Your task to perform on an android device: turn smart compose on in the gmail app Image 0: 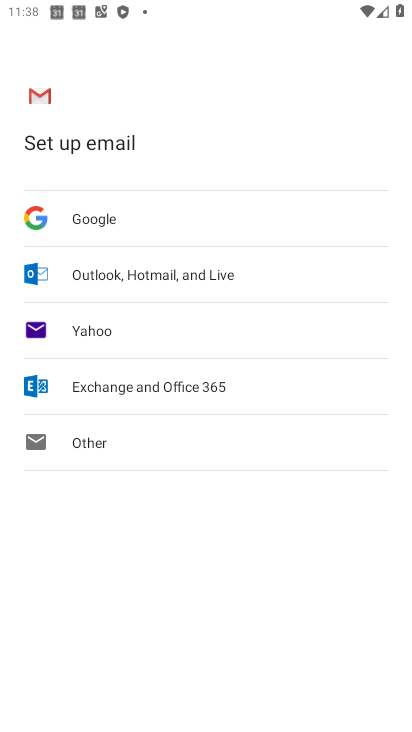
Step 0: press home button
Your task to perform on an android device: turn smart compose on in the gmail app Image 1: 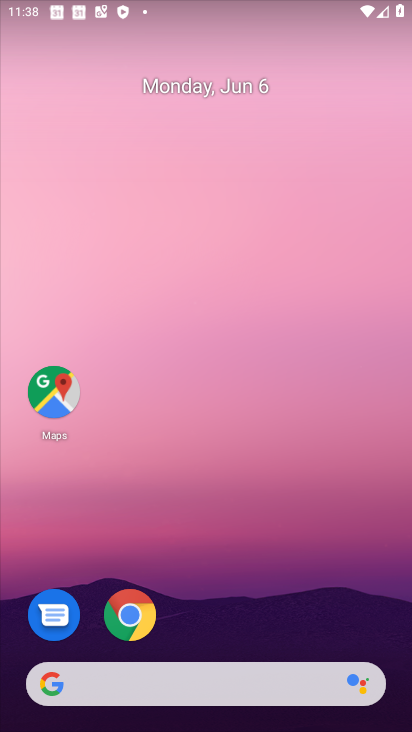
Step 1: drag from (269, 625) to (311, 31)
Your task to perform on an android device: turn smart compose on in the gmail app Image 2: 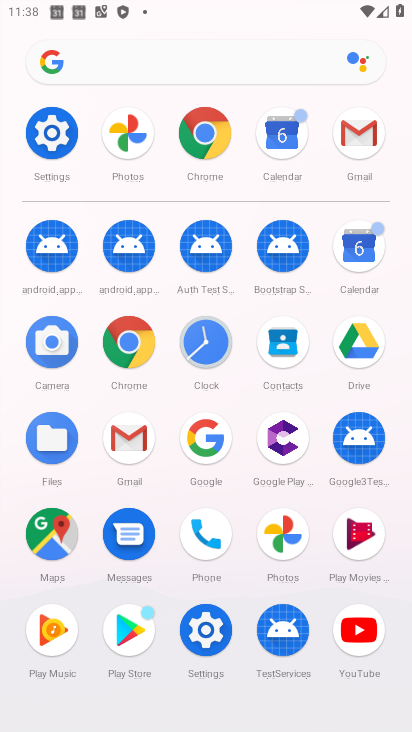
Step 2: click (130, 442)
Your task to perform on an android device: turn smart compose on in the gmail app Image 3: 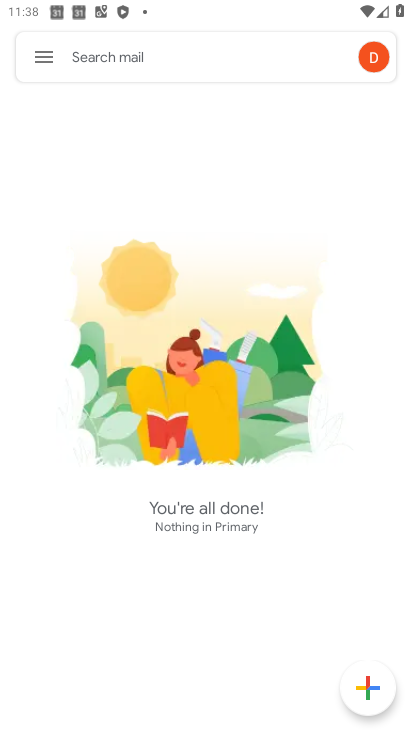
Step 3: click (48, 64)
Your task to perform on an android device: turn smart compose on in the gmail app Image 4: 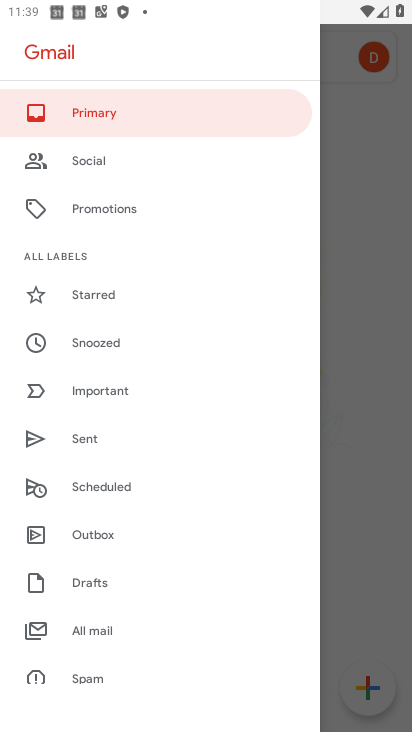
Step 4: click (382, 590)
Your task to perform on an android device: turn smart compose on in the gmail app Image 5: 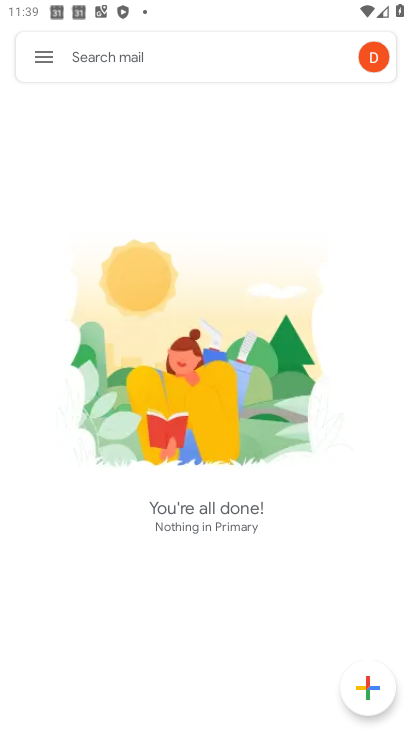
Step 5: click (27, 62)
Your task to perform on an android device: turn smart compose on in the gmail app Image 6: 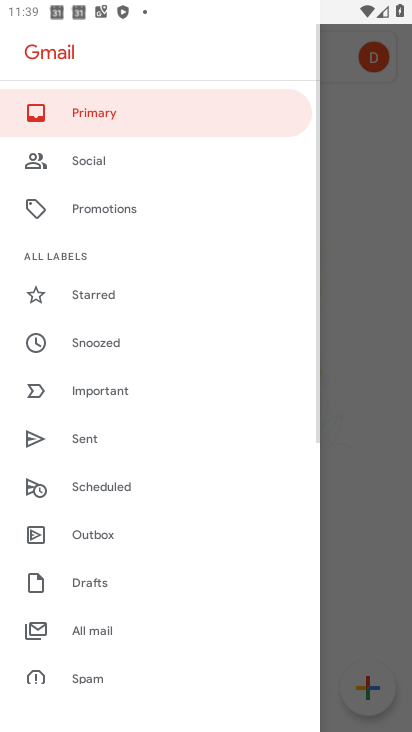
Step 6: drag from (53, 642) to (131, 322)
Your task to perform on an android device: turn smart compose on in the gmail app Image 7: 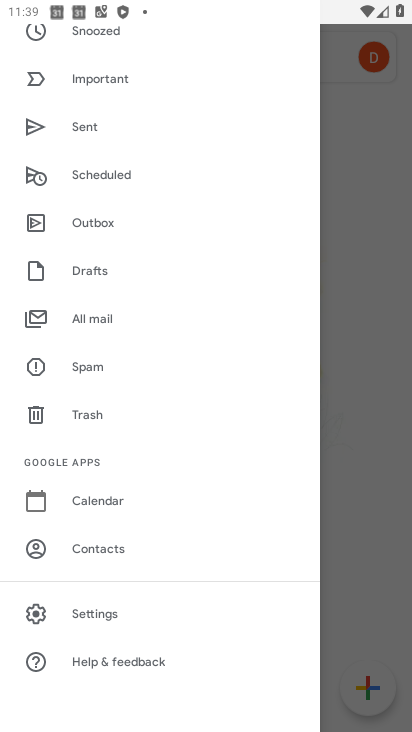
Step 7: click (141, 605)
Your task to perform on an android device: turn smart compose on in the gmail app Image 8: 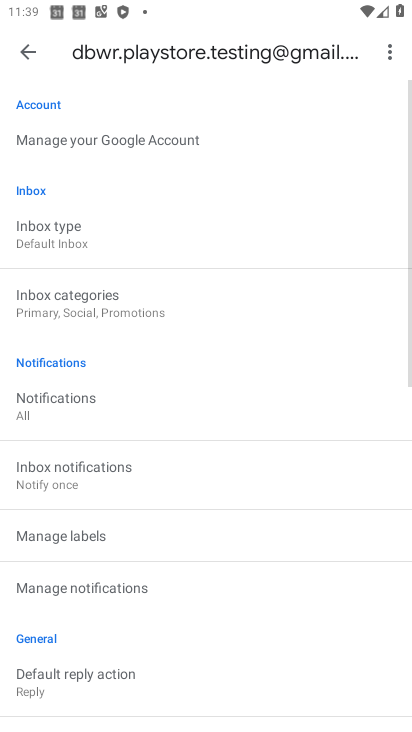
Step 8: drag from (146, 636) to (208, 196)
Your task to perform on an android device: turn smart compose on in the gmail app Image 9: 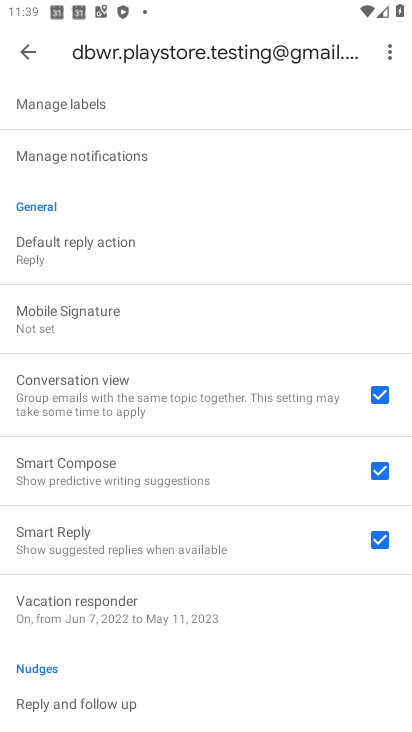
Step 9: click (313, 493)
Your task to perform on an android device: turn smart compose on in the gmail app Image 10: 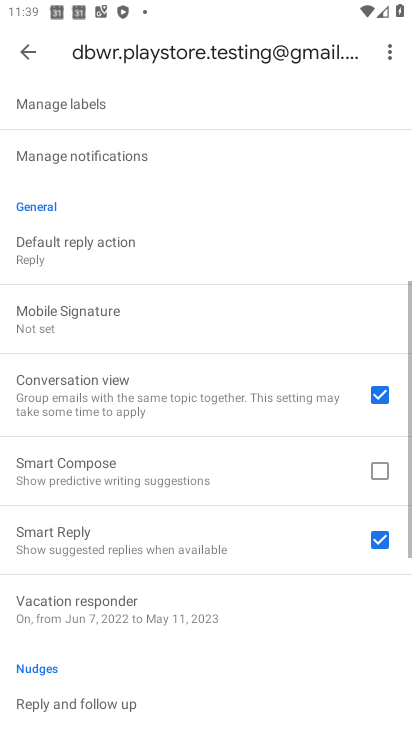
Step 10: task complete